Your task to perform on an android device: Open Reddit.com Image 0: 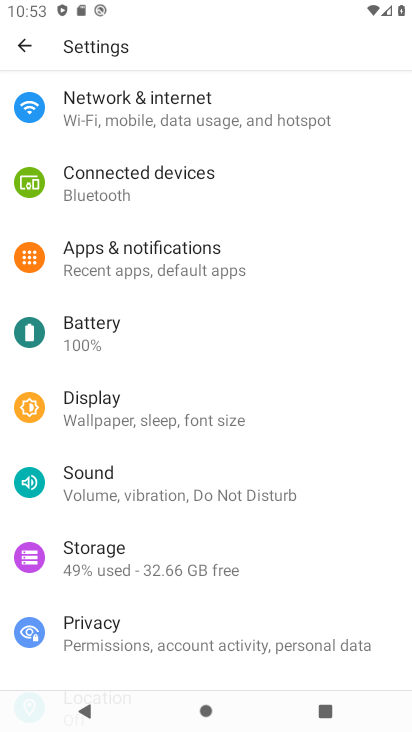
Step 0: press home button
Your task to perform on an android device: Open Reddit.com Image 1: 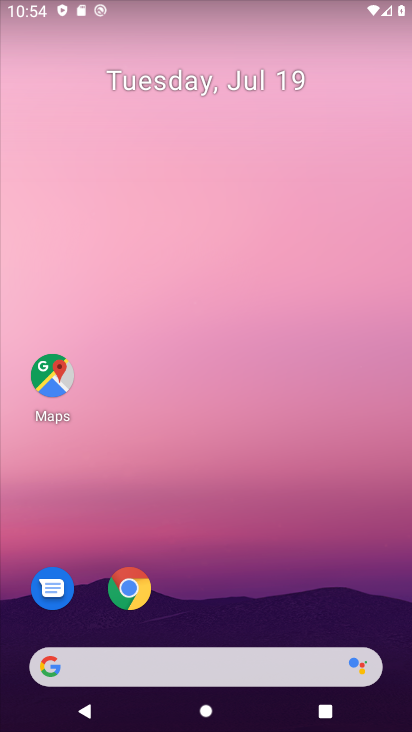
Step 1: drag from (355, 619) to (250, 0)
Your task to perform on an android device: Open Reddit.com Image 2: 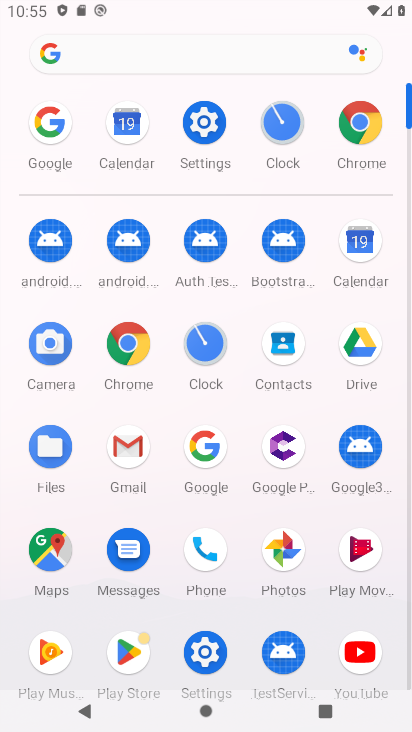
Step 2: click (202, 465)
Your task to perform on an android device: Open Reddit.com Image 3: 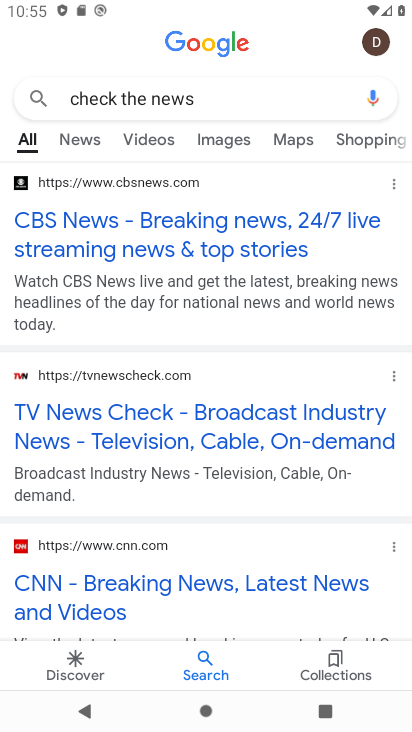
Step 3: press back button
Your task to perform on an android device: Open Reddit.com Image 4: 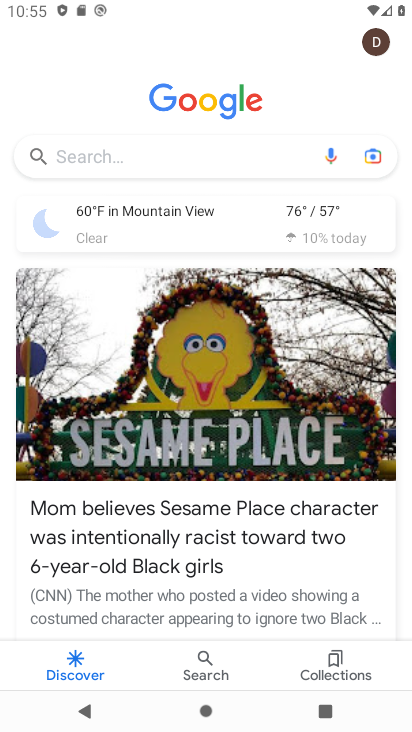
Step 4: click (93, 155)
Your task to perform on an android device: Open Reddit.com Image 5: 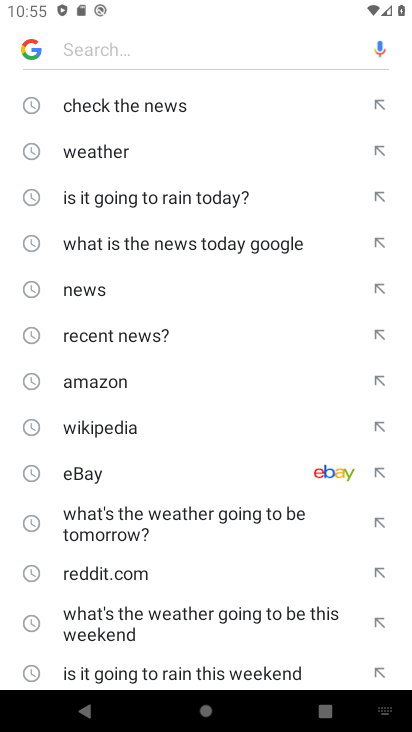
Step 5: type " Reddit.com"
Your task to perform on an android device: Open Reddit.com Image 6: 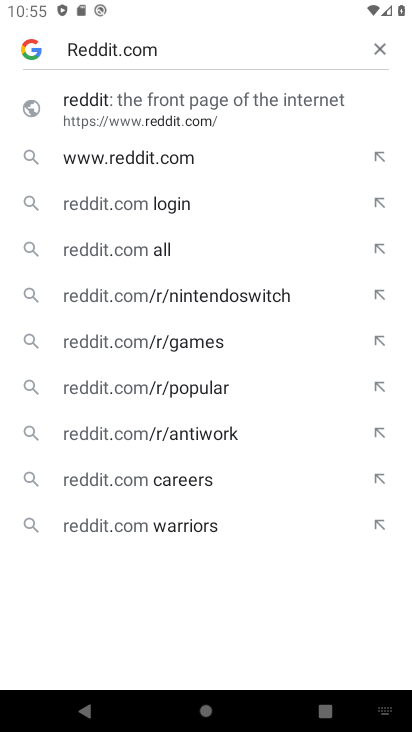
Step 6: click (174, 104)
Your task to perform on an android device: Open Reddit.com Image 7: 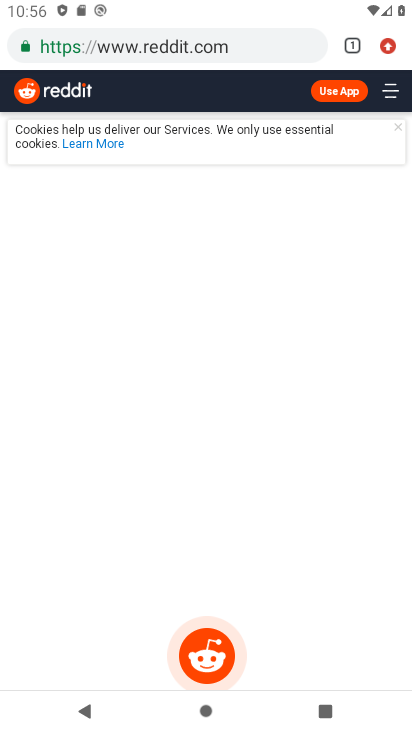
Step 7: task complete